Your task to perform on an android device: check battery use Image 0: 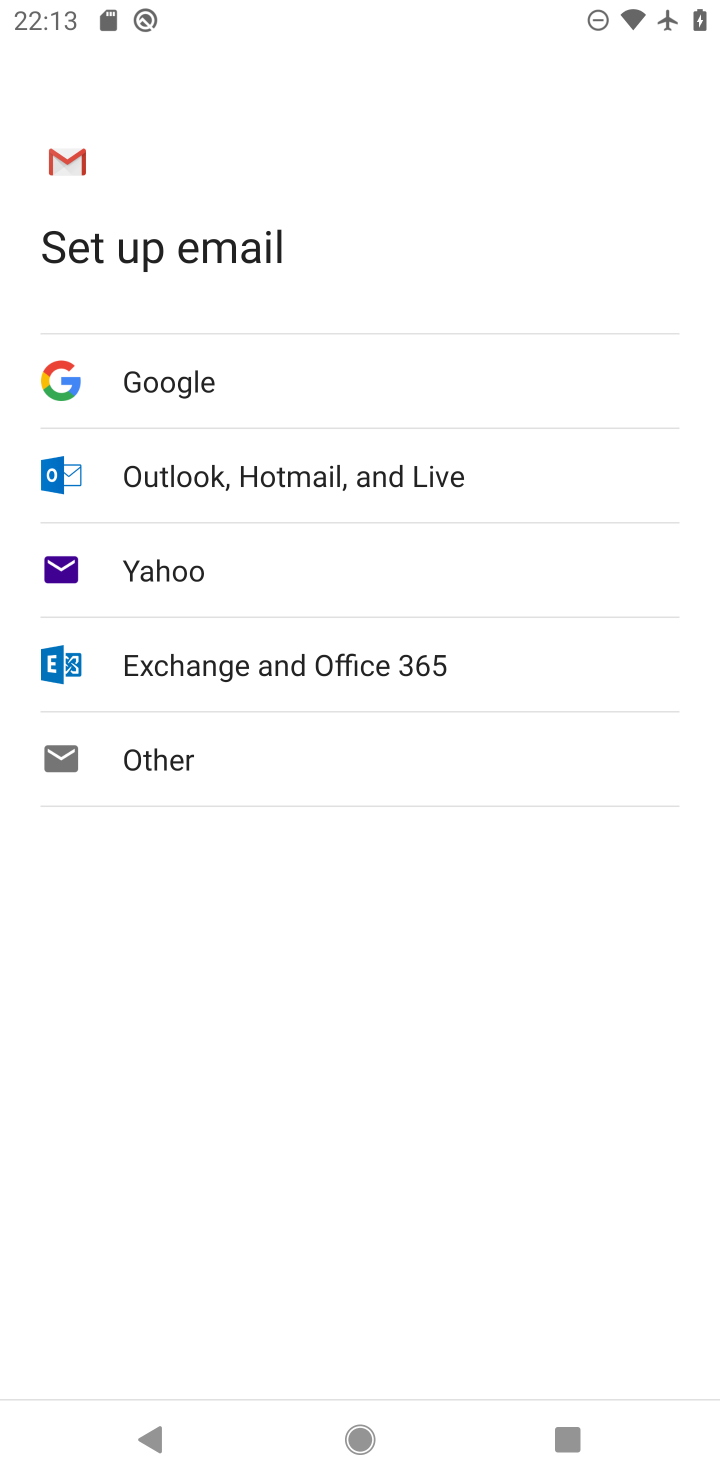
Step 0: press home button
Your task to perform on an android device: check battery use Image 1: 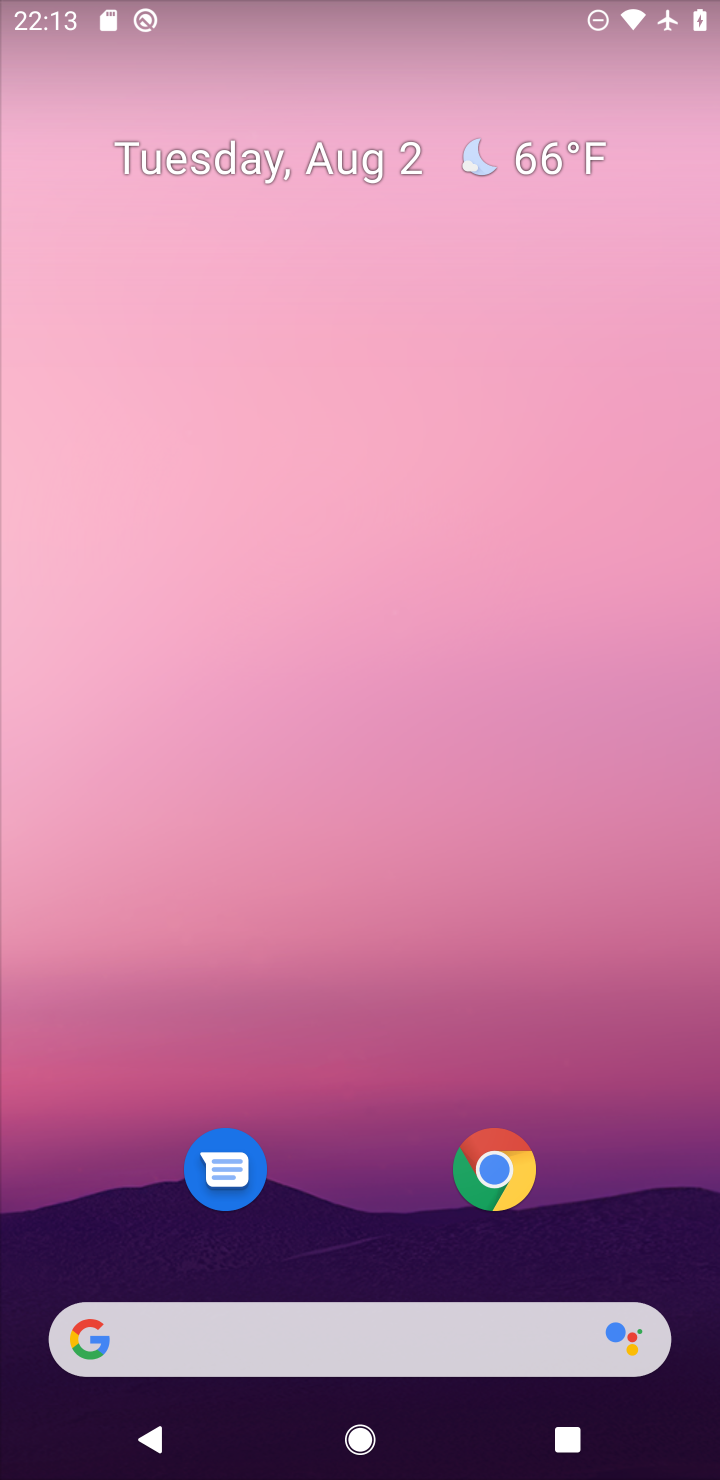
Step 1: drag from (376, 1189) to (306, 4)
Your task to perform on an android device: check battery use Image 2: 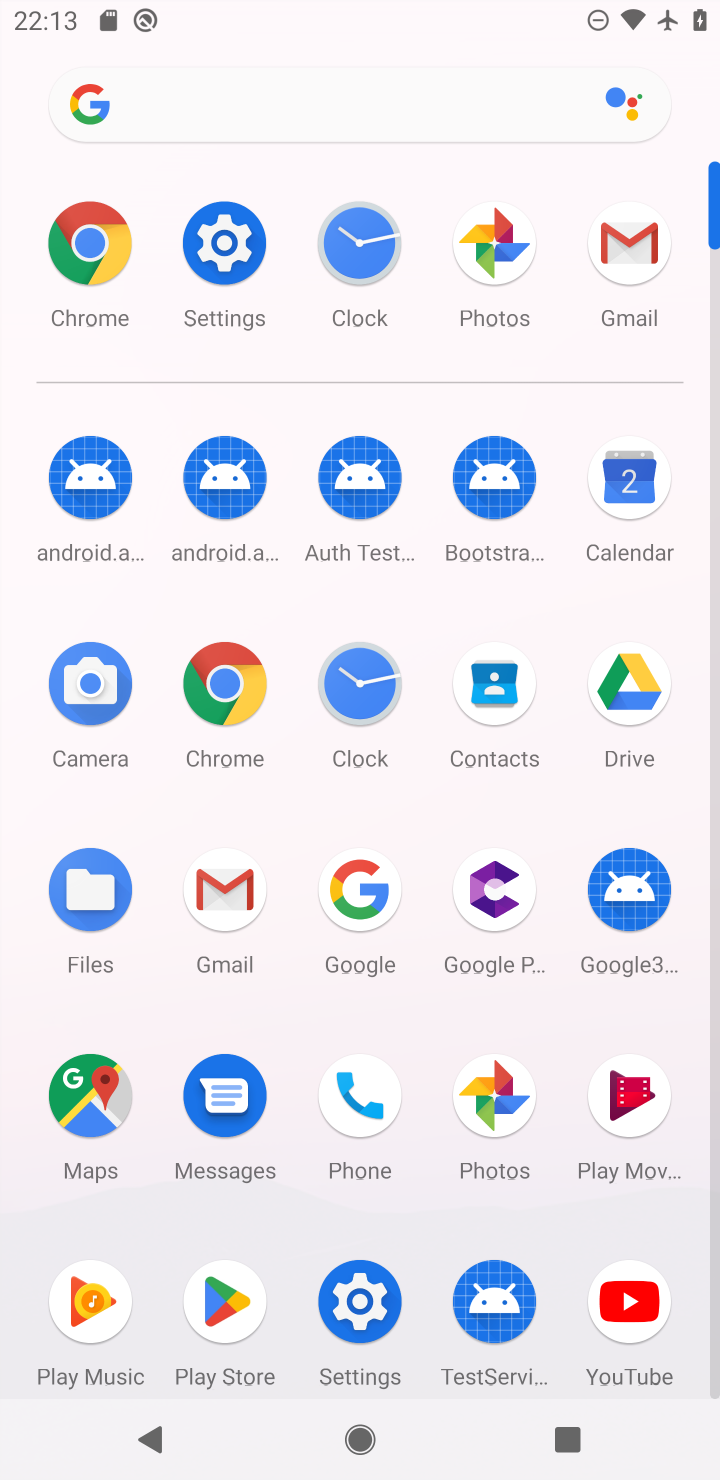
Step 2: click (214, 245)
Your task to perform on an android device: check battery use Image 3: 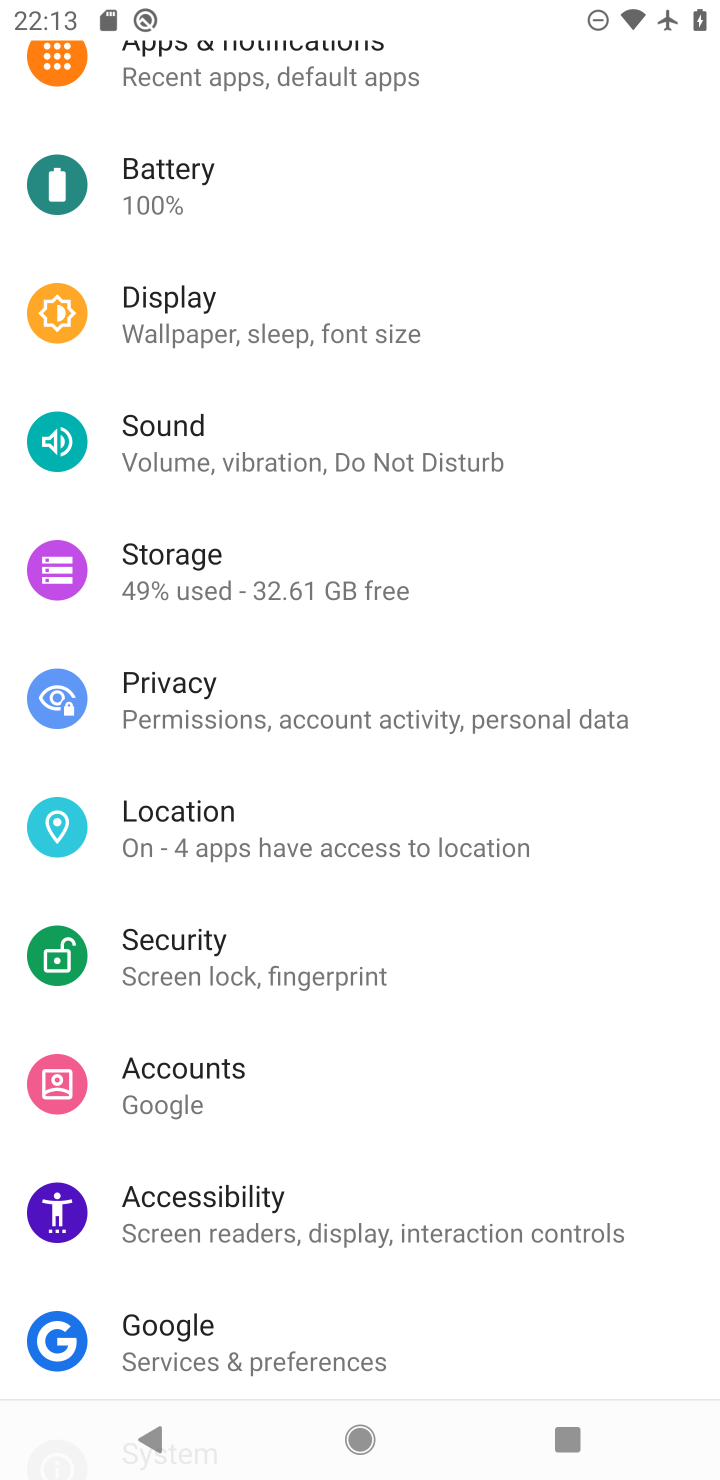
Step 3: click (155, 188)
Your task to perform on an android device: check battery use Image 4: 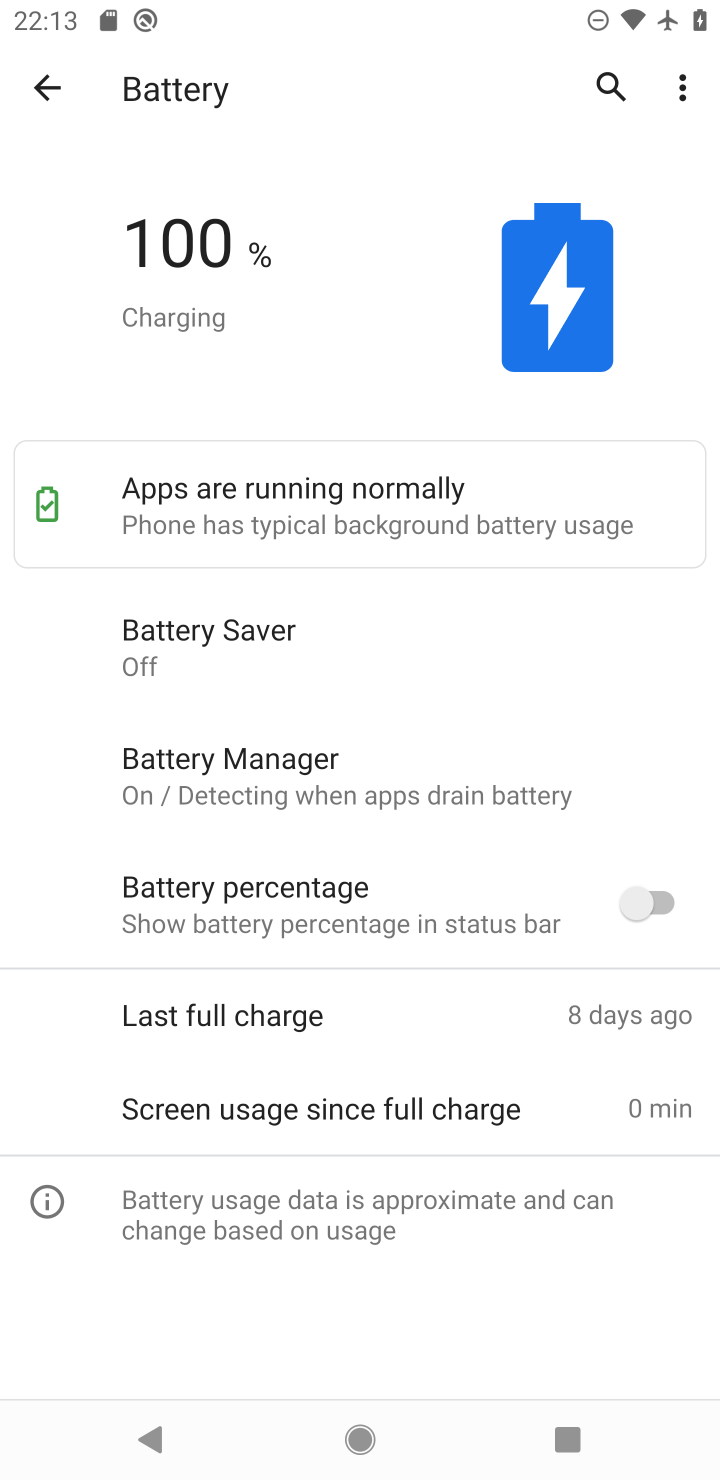
Step 4: click (681, 88)
Your task to perform on an android device: check battery use Image 5: 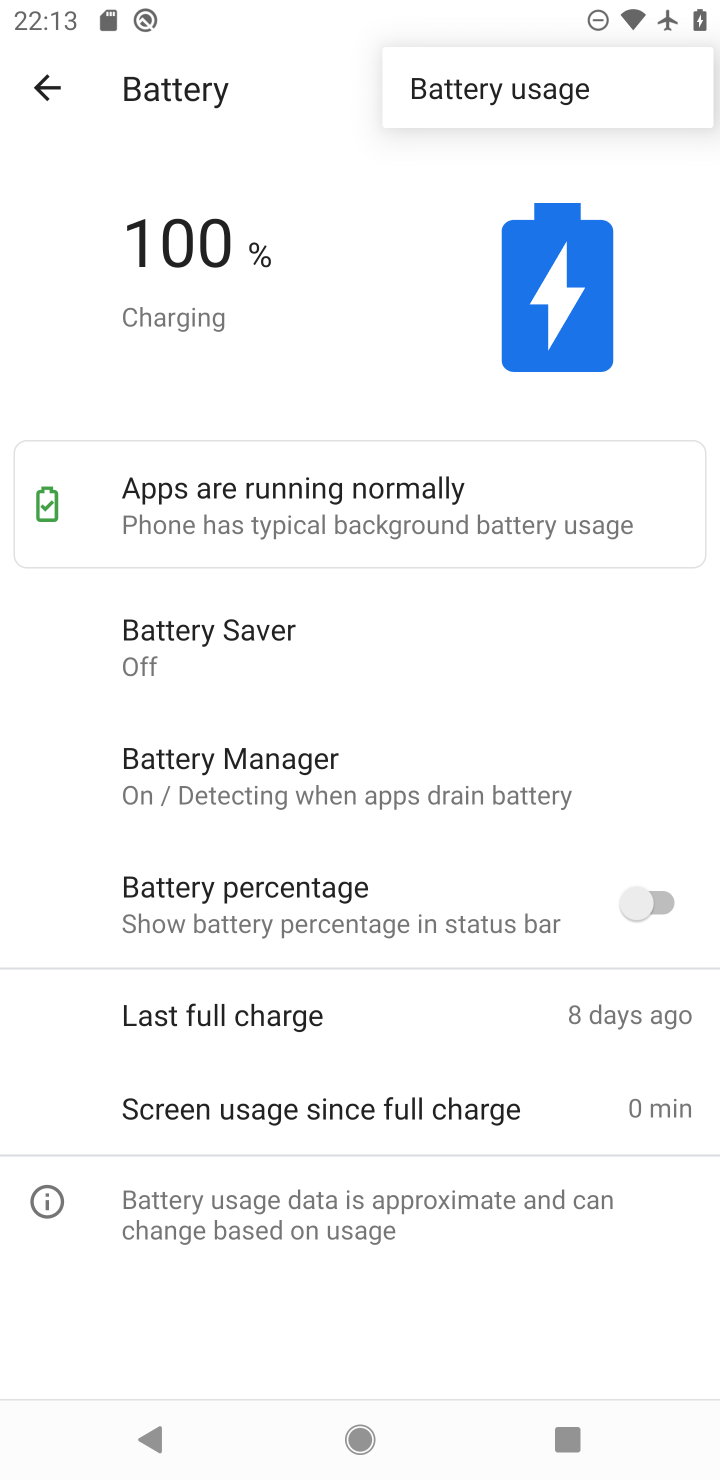
Step 5: click (523, 88)
Your task to perform on an android device: check battery use Image 6: 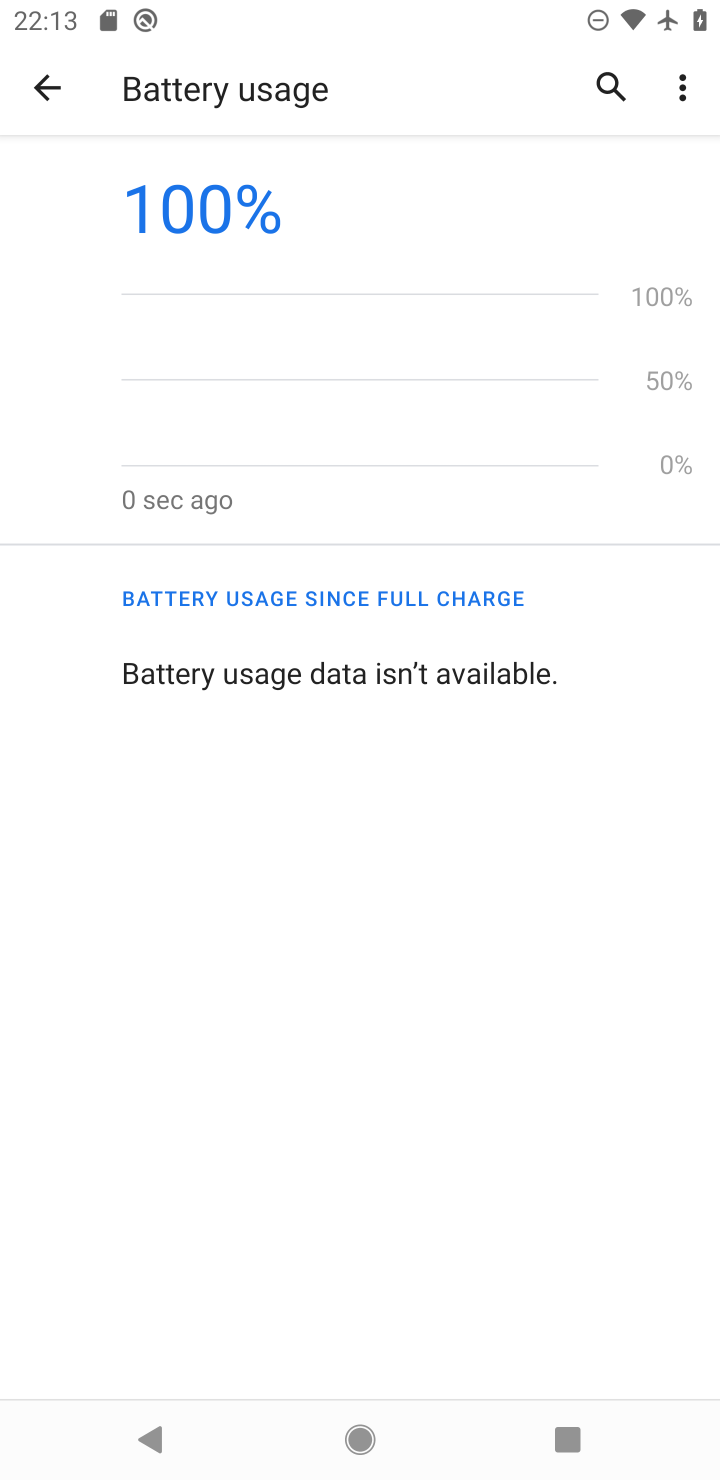
Step 6: task complete